Your task to perform on an android device: turn notification dots on Image 0: 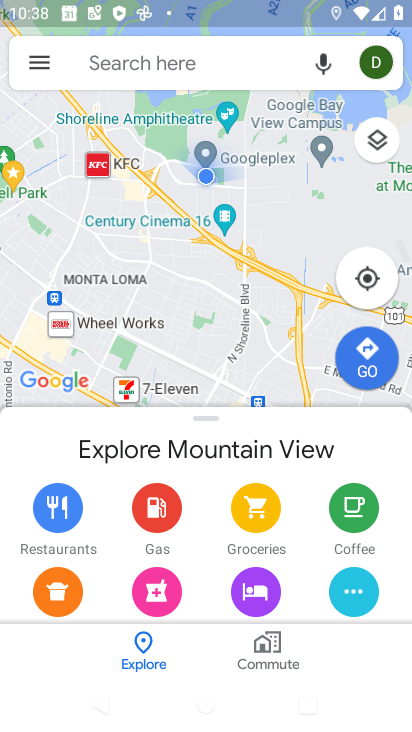
Step 0: press home button
Your task to perform on an android device: turn notification dots on Image 1: 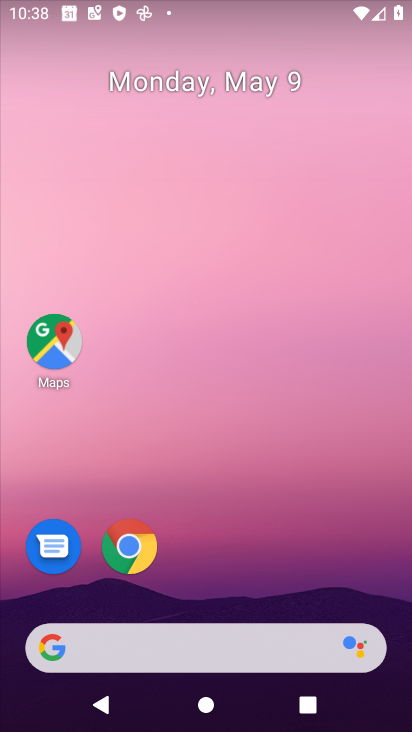
Step 1: drag from (251, 713) to (241, 15)
Your task to perform on an android device: turn notification dots on Image 2: 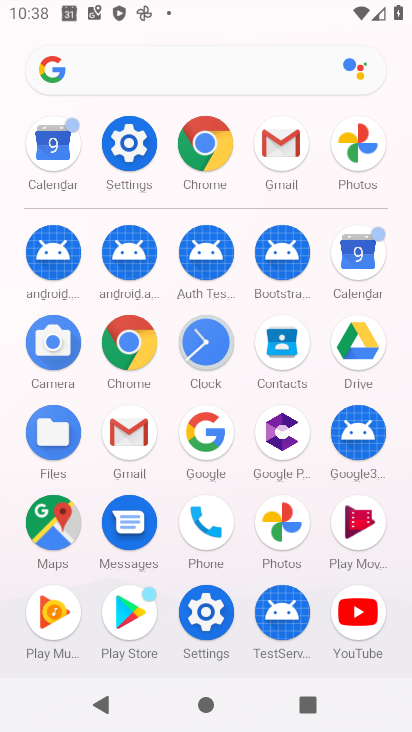
Step 2: click (123, 144)
Your task to perform on an android device: turn notification dots on Image 3: 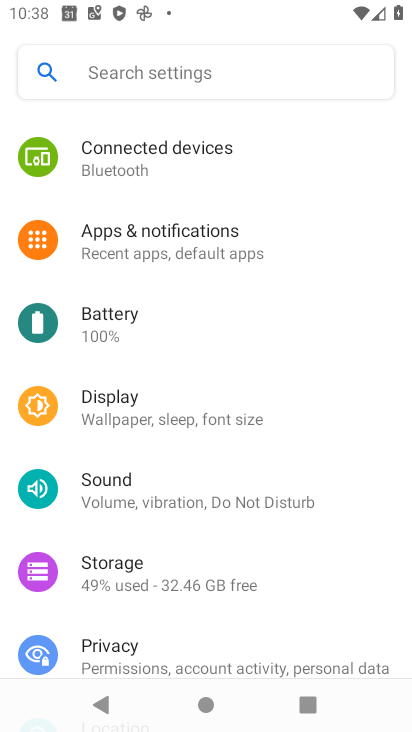
Step 3: click (230, 237)
Your task to perform on an android device: turn notification dots on Image 4: 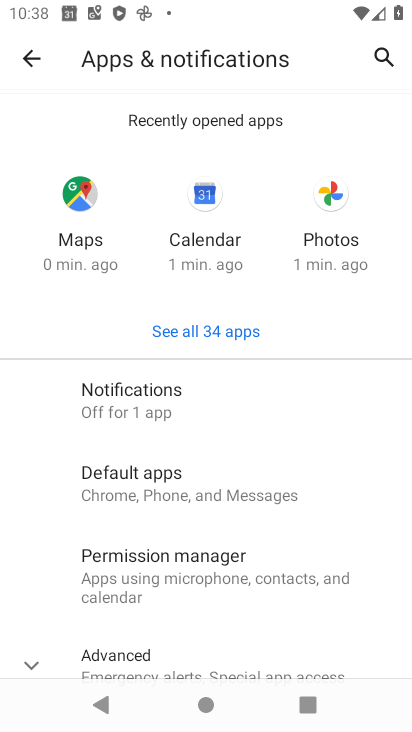
Step 4: click (164, 399)
Your task to perform on an android device: turn notification dots on Image 5: 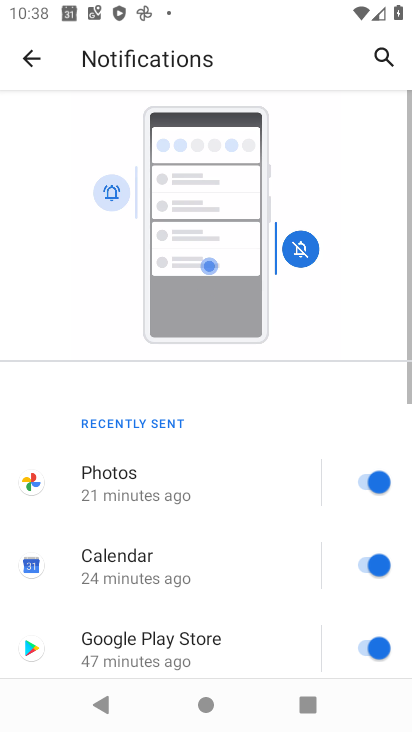
Step 5: drag from (293, 611) to (220, 30)
Your task to perform on an android device: turn notification dots on Image 6: 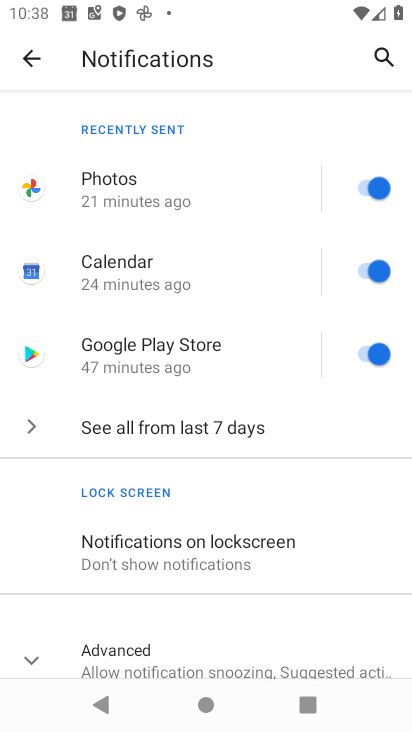
Step 6: drag from (251, 602) to (238, 120)
Your task to perform on an android device: turn notification dots on Image 7: 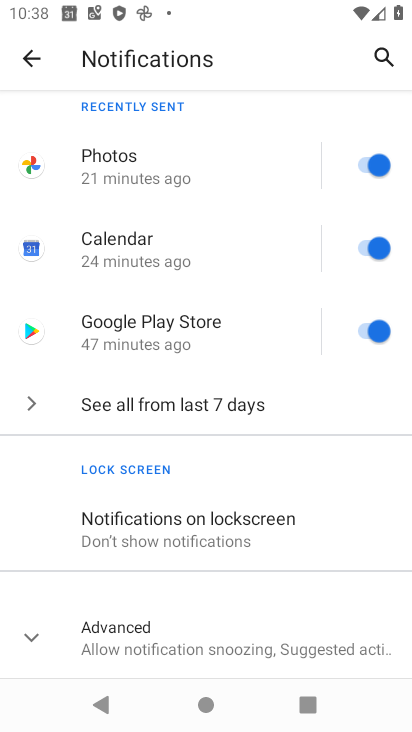
Step 7: click (239, 645)
Your task to perform on an android device: turn notification dots on Image 8: 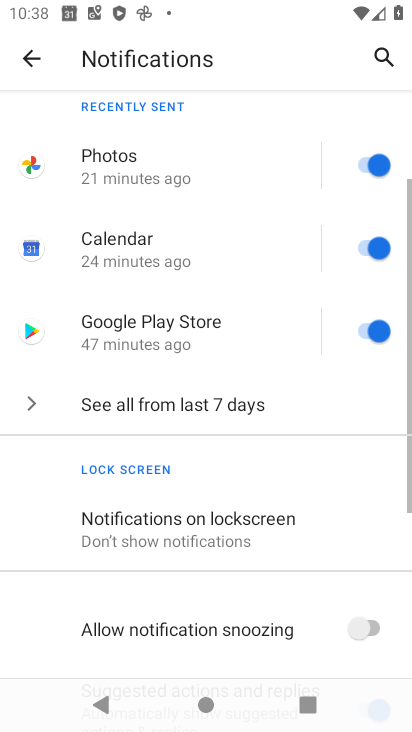
Step 8: task complete